Your task to perform on an android device: turn on translation in the chrome app Image 0: 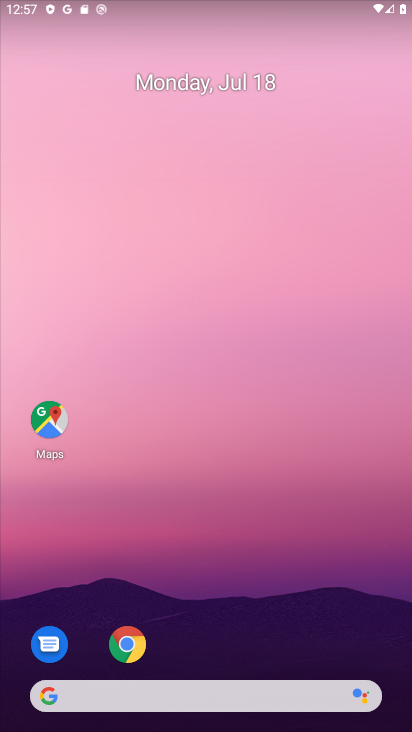
Step 0: click (122, 647)
Your task to perform on an android device: turn on translation in the chrome app Image 1: 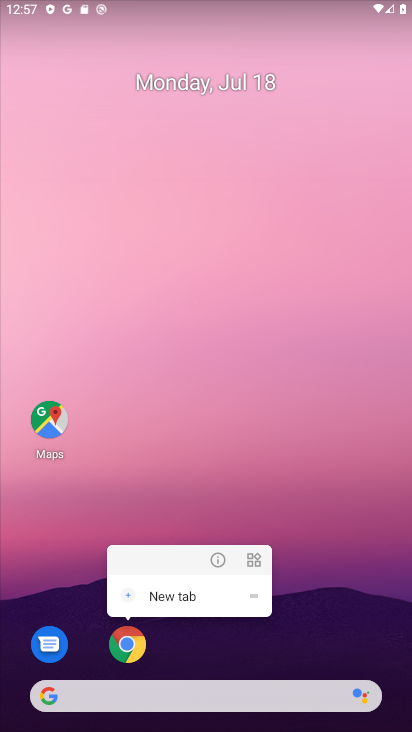
Step 1: click (135, 635)
Your task to perform on an android device: turn on translation in the chrome app Image 2: 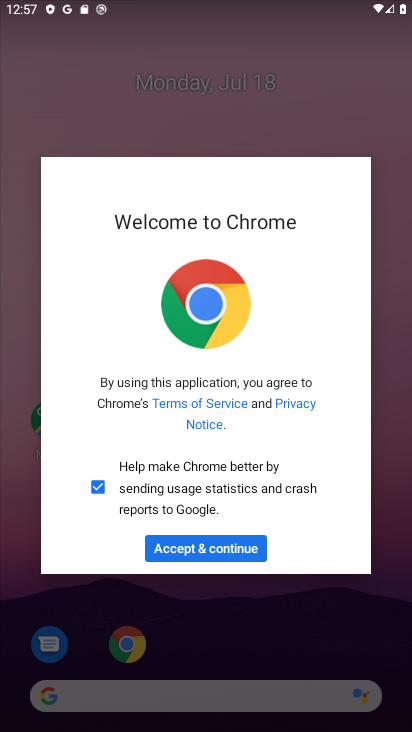
Step 2: click (188, 556)
Your task to perform on an android device: turn on translation in the chrome app Image 3: 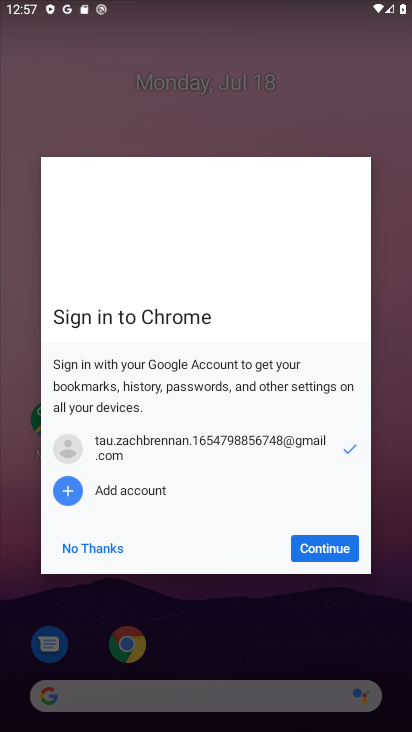
Step 3: click (325, 548)
Your task to perform on an android device: turn on translation in the chrome app Image 4: 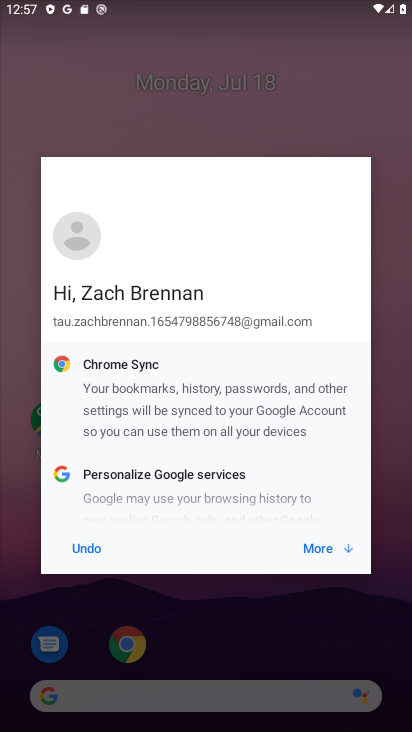
Step 4: click (325, 548)
Your task to perform on an android device: turn on translation in the chrome app Image 5: 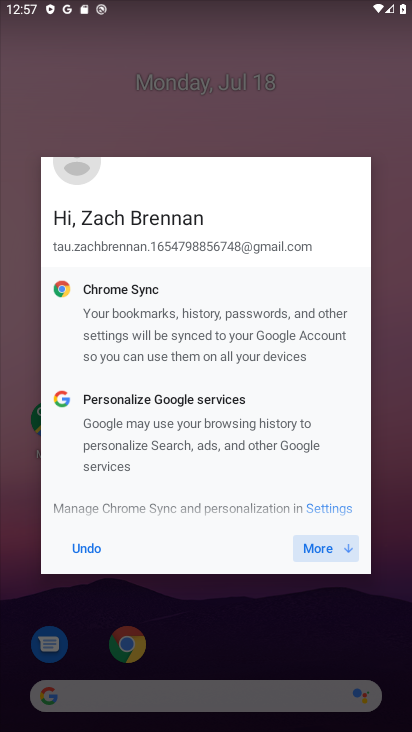
Step 5: click (325, 548)
Your task to perform on an android device: turn on translation in the chrome app Image 6: 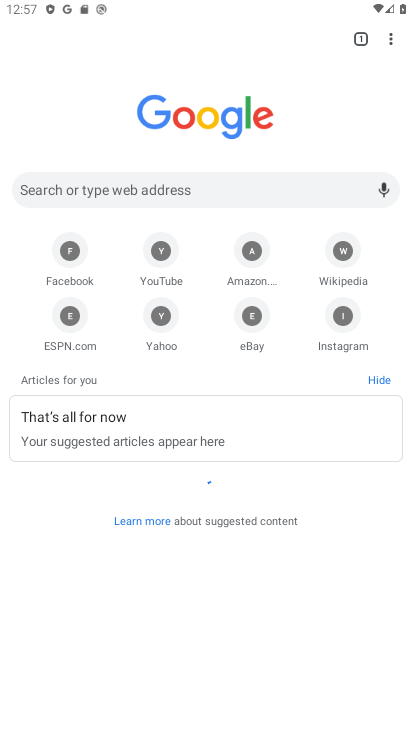
Step 6: drag from (394, 47) to (277, 324)
Your task to perform on an android device: turn on translation in the chrome app Image 7: 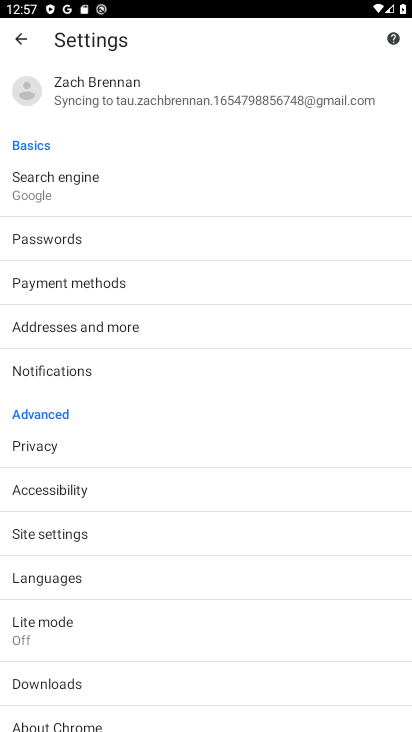
Step 7: drag from (113, 655) to (185, 419)
Your task to perform on an android device: turn on translation in the chrome app Image 8: 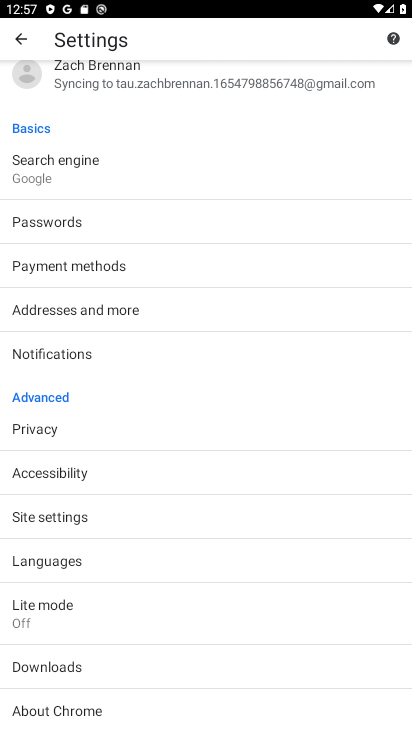
Step 8: click (119, 559)
Your task to perform on an android device: turn on translation in the chrome app Image 9: 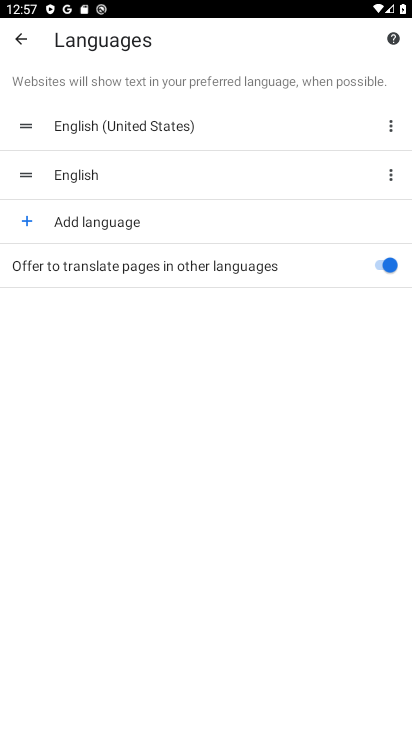
Step 9: task complete